Your task to perform on an android device: Show me productivity apps on the Play Store Image 0: 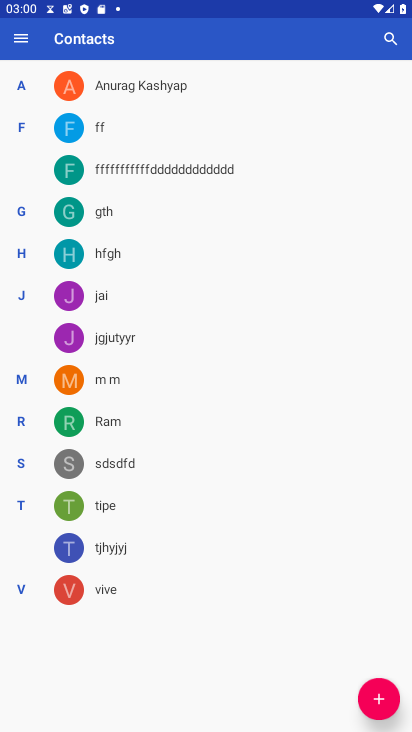
Step 0: press back button
Your task to perform on an android device: Show me productivity apps on the Play Store Image 1: 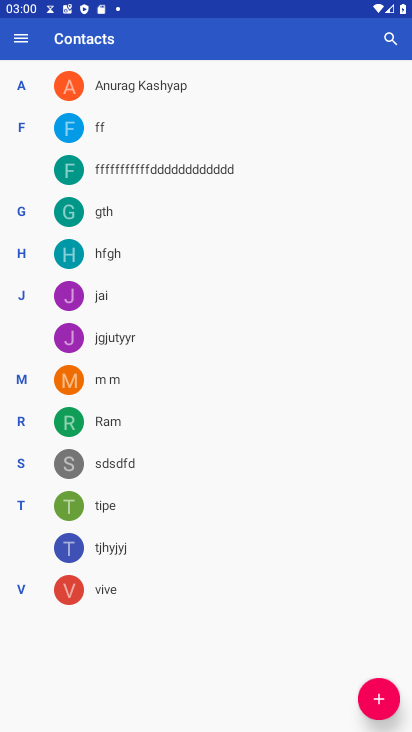
Step 1: press back button
Your task to perform on an android device: Show me productivity apps on the Play Store Image 2: 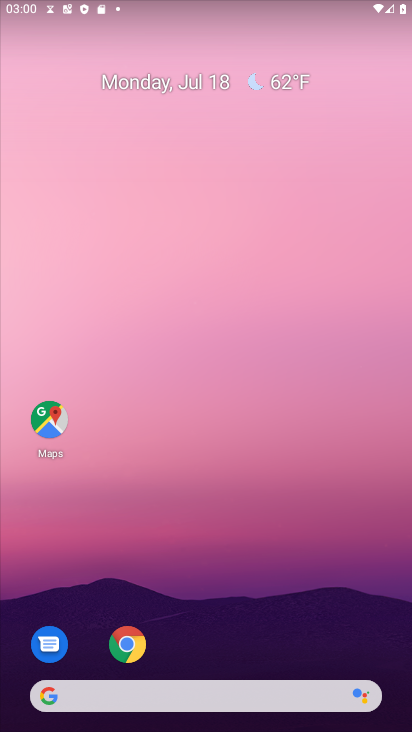
Step 2: drag from (175, 195) to (162, 117)
Your task to perform on an android device: Show me productivity apps on the Play Store Image 3: 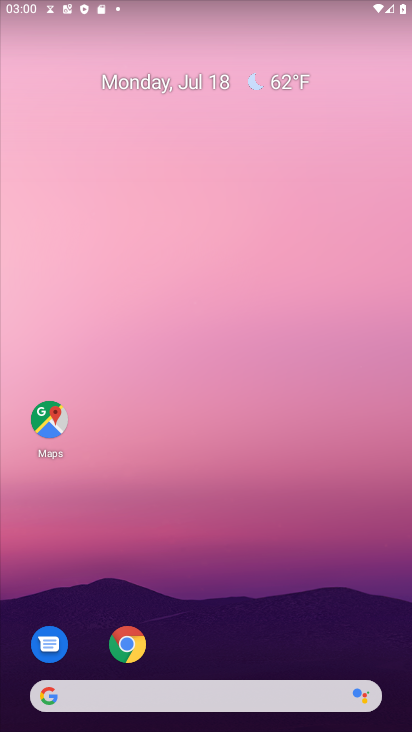
Step 3: drag from (218, 643) to (151, 204)
Your task to perform on an android device: Show me productivity apps on the Play Store Image 4: 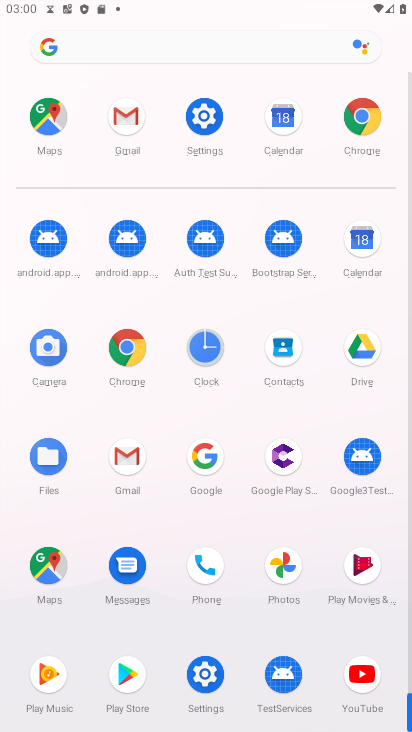
Step 4: click (118, 674)
Your task to perform on an android device: Show me productivity apps on the Play Store Image 5: 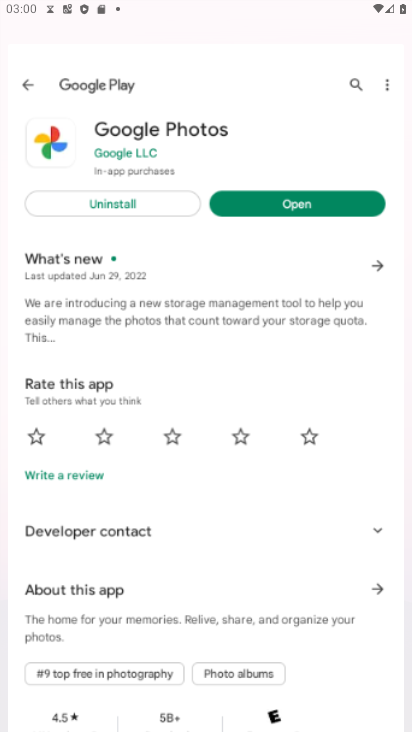
Step 5: click (120, 673)
Your task to perform on an android device: Show me productivity apps on the Play Store Image 6: 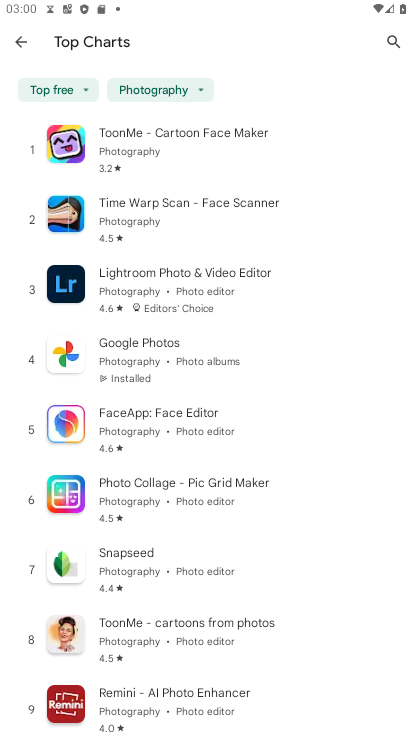
Step 6: click (9, 39)
Your task to perform on an android device: Show me productivity apps on the Play Store Image 7: 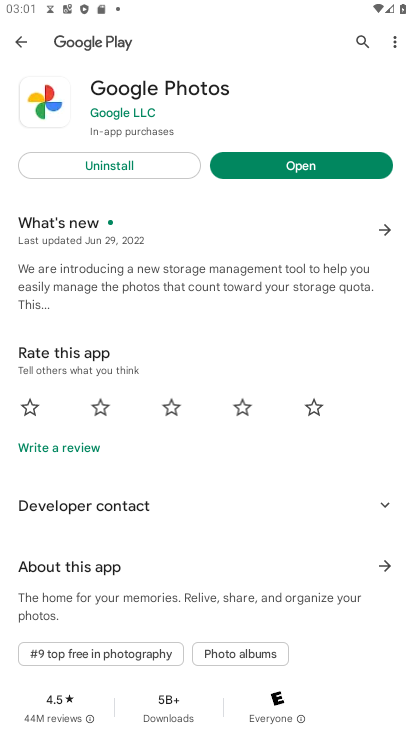
Step 7: click (111, 174)
Your task to perform on an android device: Show me productivity apps on the Play Store Image 8: 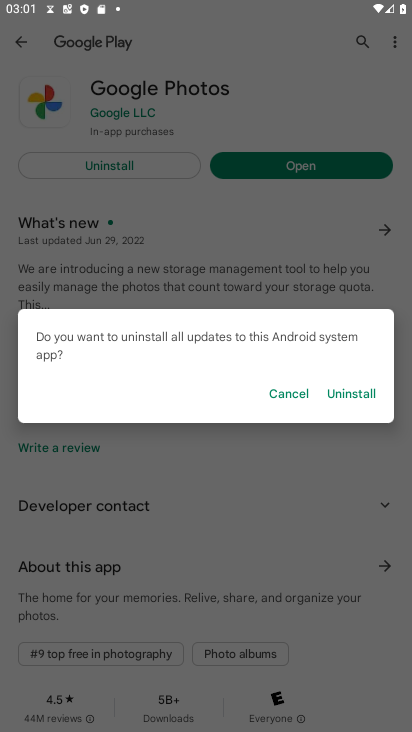
Step 8: click (278, 391)
Your task to perform on an android device: Show me productivity apps on the Play Store Image 9: 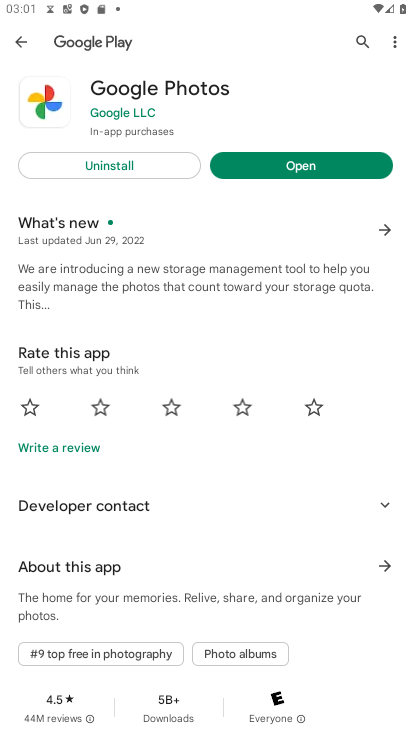
Step 9: click (17, 53)
Your task to perform on an android device: Show me productivity apps on the Play Store Image 10: 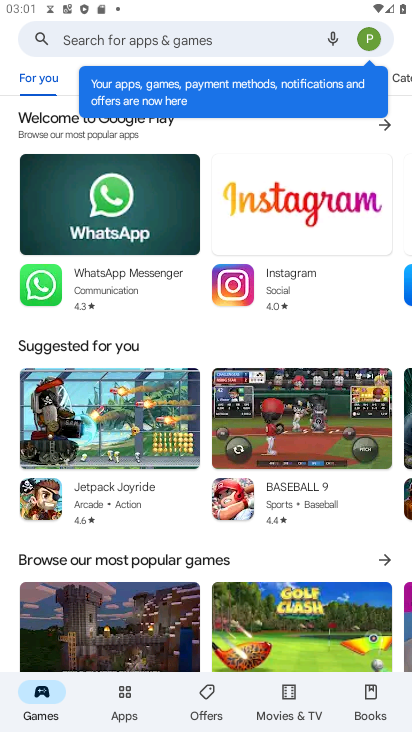
Step 10: press back button
Your task to perform on an android device: Show me productivity apps on the Play Store Image 11: 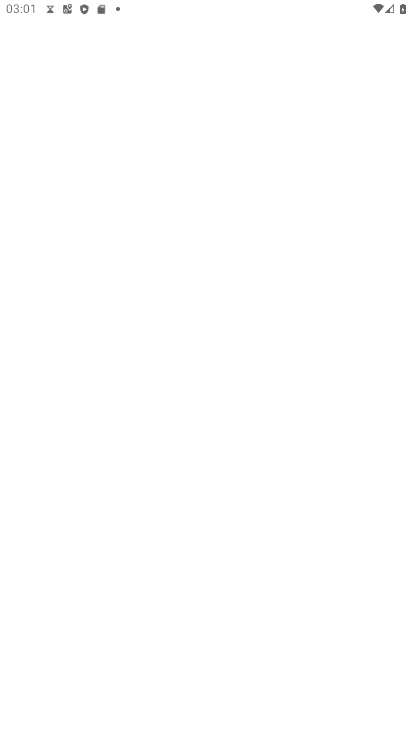
Step 11: press back button
Your task to perform on an android device: Show me productivity apps on the Play Store Image 12: 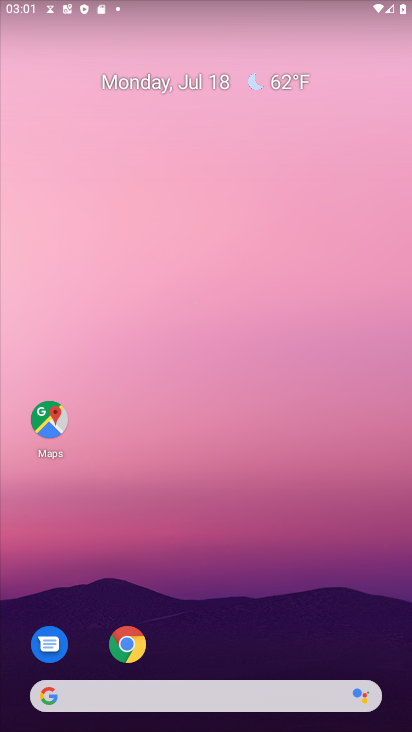
Step 12: drag from (221, 573) to (184, 193)
Your task to perform on an android device: Show me productivity apps on the Play Store Image 13: 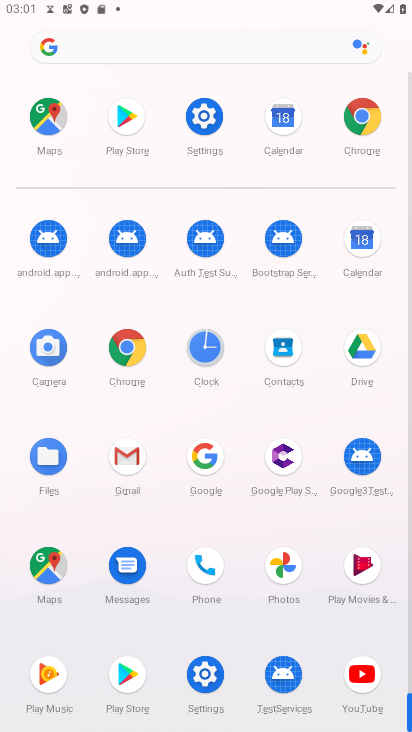
Step 13: click (121, 683)
Your task to perform on an android device: Show me productivity apps on the Play Store Image 14: 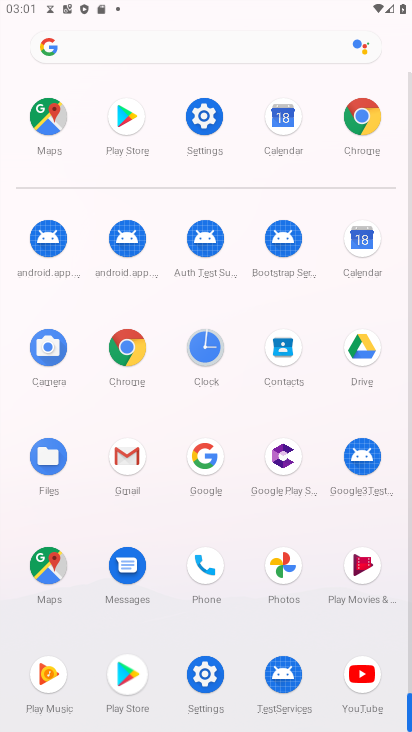
Step 14: click (113, 686)
Your task to perform on an android device: Show me productivity apps on the Play Store Image 15: 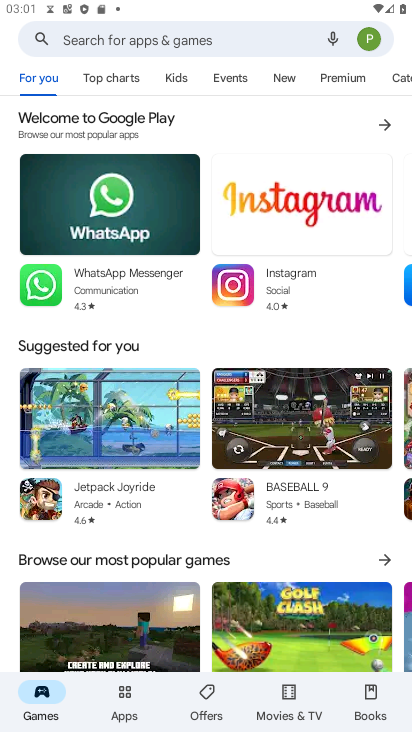
Step 15: click (228, 32)
Your task to perform on an android device: Show me productivity apps on the Play Store Image 16: 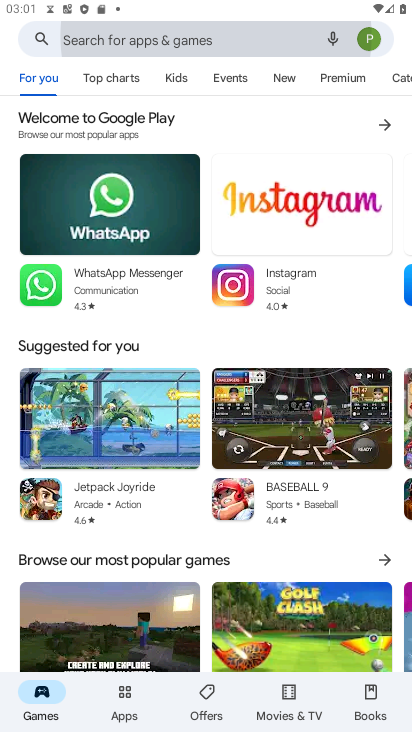
Step 16: click (210, 40)
Your task to perform on an android device: Show me productivity apps on the Play Store Image 17: 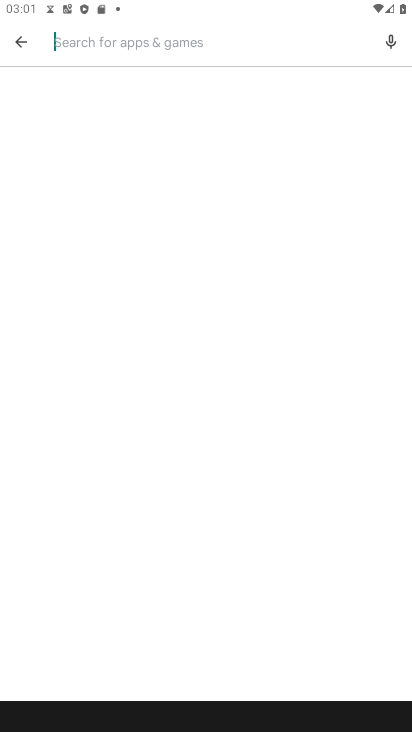
Step 17: click (212, 41)
Your task to perform on an android device: Show me productivity apps on the Play Store Image 18: 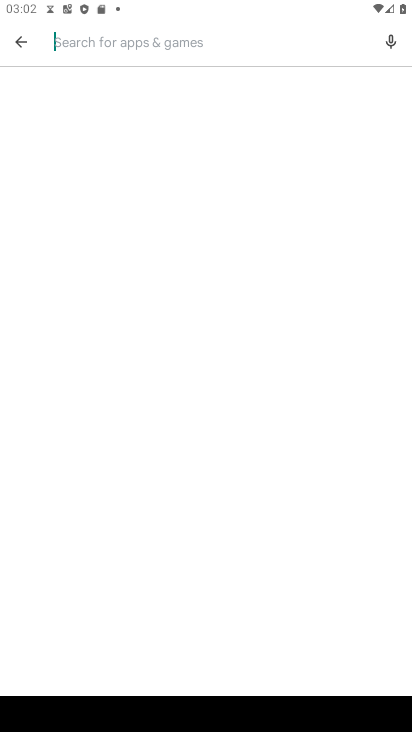
Step 18: type "productivity apps"
Your task to perform on an android device: Show me productivity apps on the Play Store Image 19: 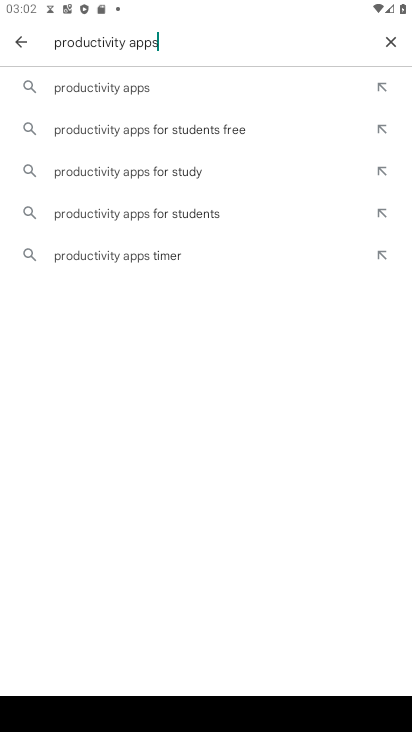
Step 19: click (143, 99)
Your task to perform on an android device: Show me productivity apps on the Play Store Image 20: 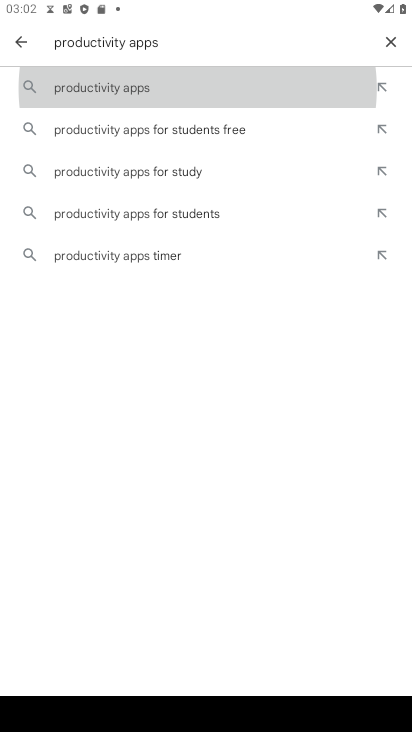
Step 20: click (143, 99)
Your task to perform on an android device: Show me productivity apps on the Play Store Image 21: 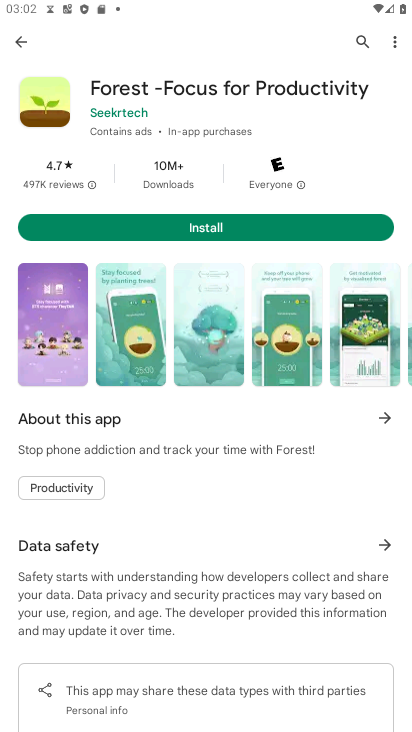
Step 21: task complete